Your task to perform on an android device: Go to sound settings Image 0: 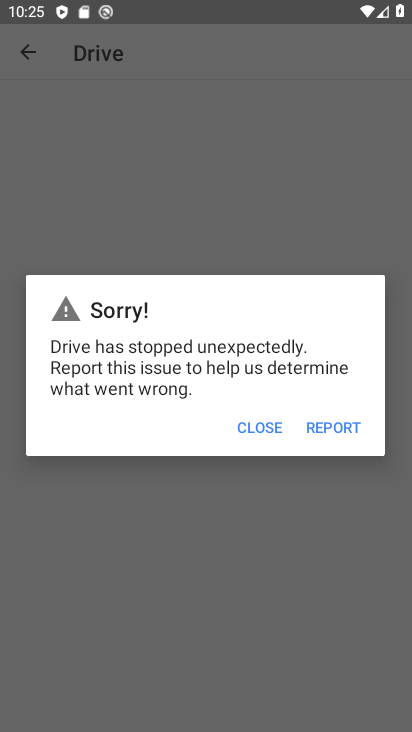
Step 0: task complete